Your task to perform on an android device: turn pop-ups on in chrome Image 0: 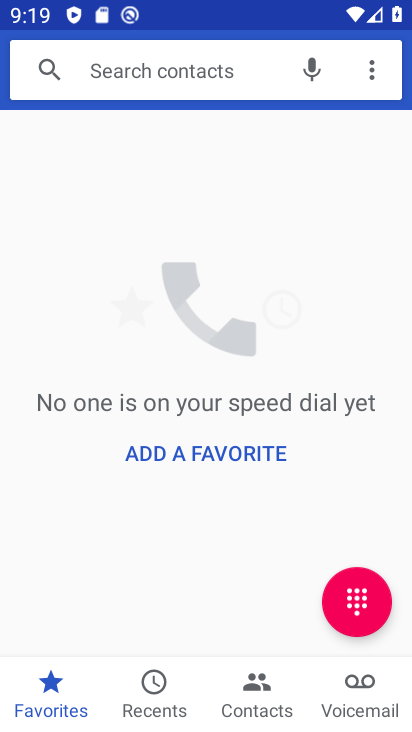
Step 0: press home button
Your task to perform on an android device: turn pop-ups on in chrome Image 1: 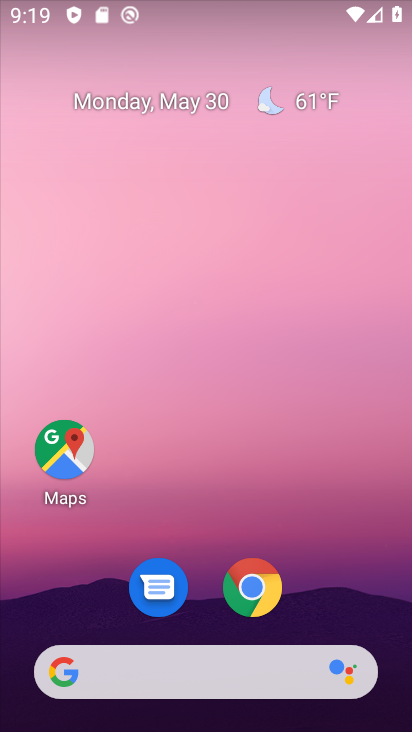
Step 1: click (264, 587)
Your task to perform on an android device: turn pop-ups on in chrome Image 2: 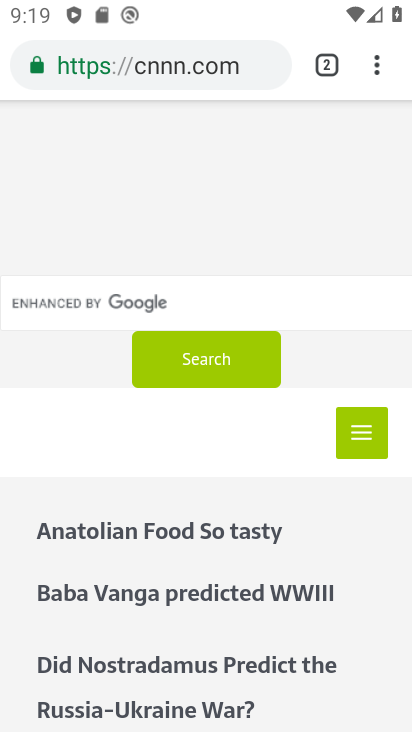
Step 2: drag from (378, 69) to (161, 645)
Your task to perform on an android device: turn pop-ups on in chrome Image 3: 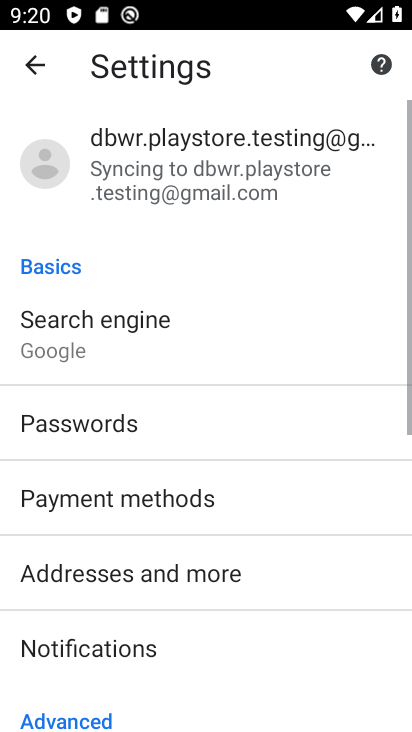
Step 3: drag from (161, 644) to (112, 108)
Your task to perform on an android device: turn pop-ups on in chrome Image 4: 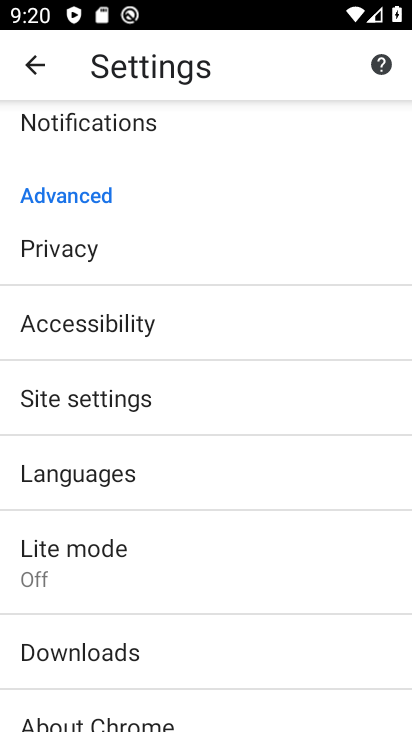
Step 4: click (94, 411)
Your task to perform on an android device: turn pop-ups on in chrome Image 5: 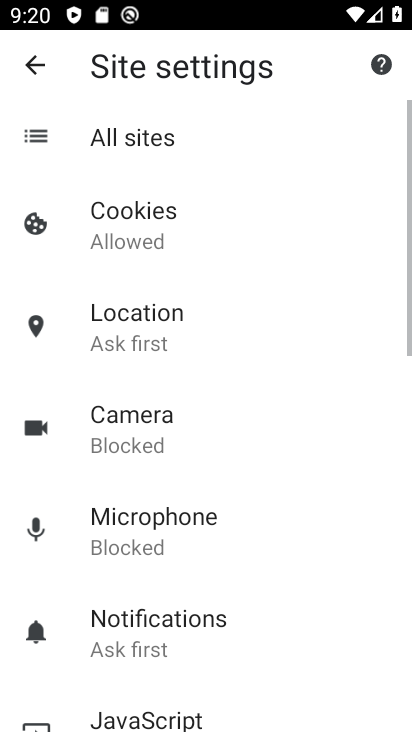
Step 5: drag from (169, 604) to (177, 185)
Your task to perform on an android device: turn pop-ups on in chrome Image 6: 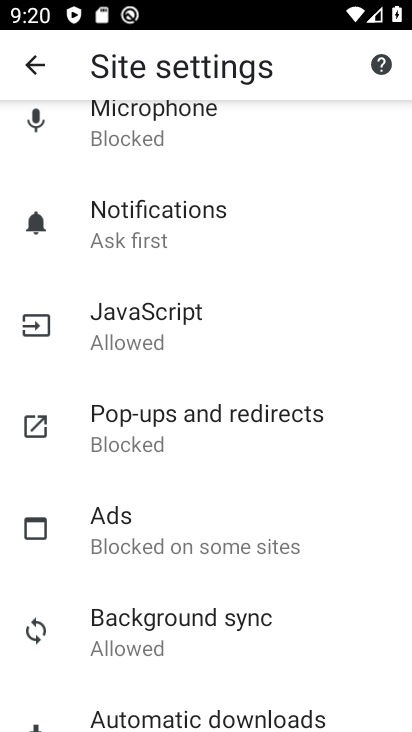
Step 6: click (165, 429)
Your task to perform on an android device: turn pop-ups on in chrome Image 7: 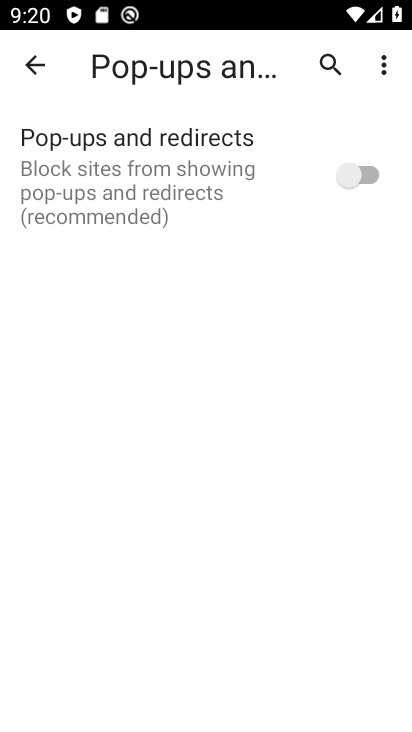
Step 7: click (367, 186)
Your task to perform on an android device: turn pop-ups on in chrome Image 8: 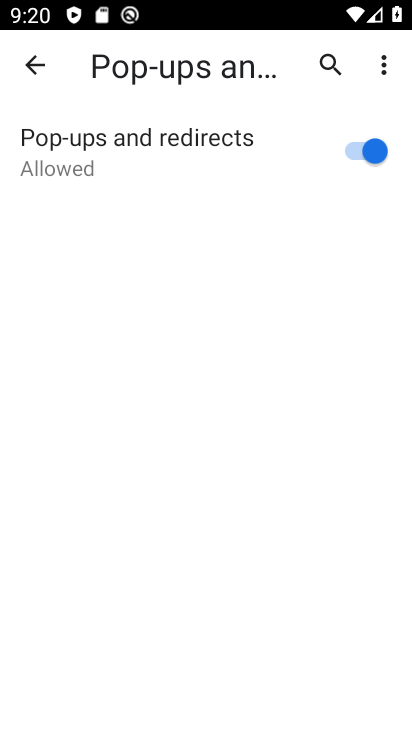
Step 8: task complete